Your task to perform on an android device: turn pop-ups off in chrome Image 0: 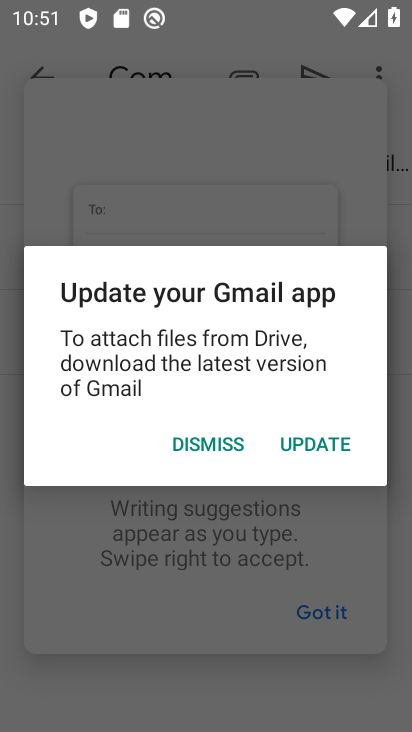
Step 0: press home button
Your task to perform on an android device: turn pop-ups off in chrome Image 1: 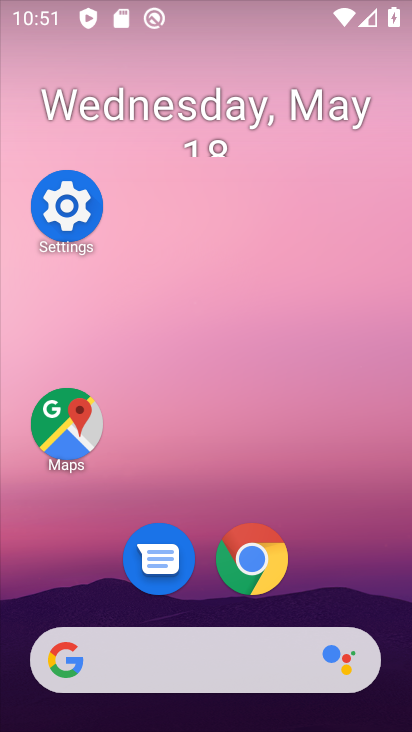
Step 1: click (266, 576)
Your task to perform on an android device: turn pop-ups off in chrome Image 2: 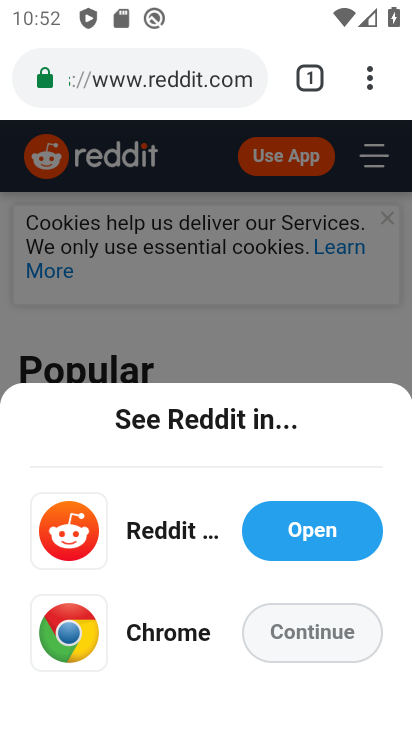
Step 2: click (378, 75)
Your task to perform on an android device: turn pop-ups off in chrome Image 3: 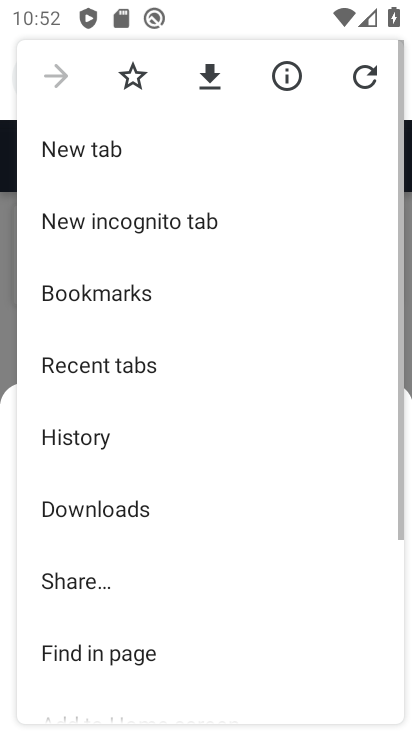
Step 3: drag from (227, 546) to (267, 155)
Your task to perform on an android device: turn pop-ups off in chrome Image 4: 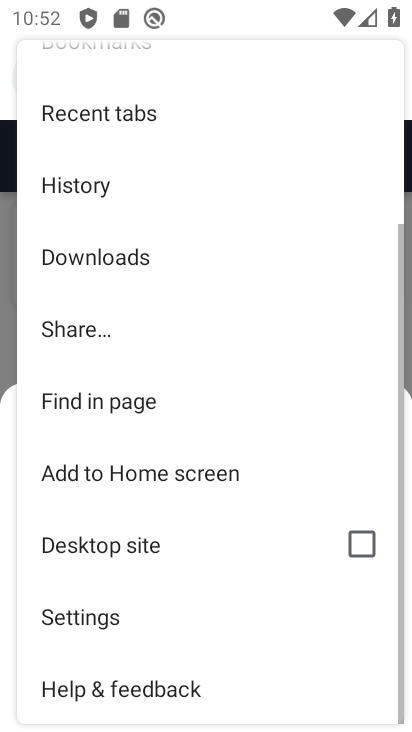
Step 4: click (164, 625)
Your task to perform on an android device: turn pop-ups off in chrome Image 5: 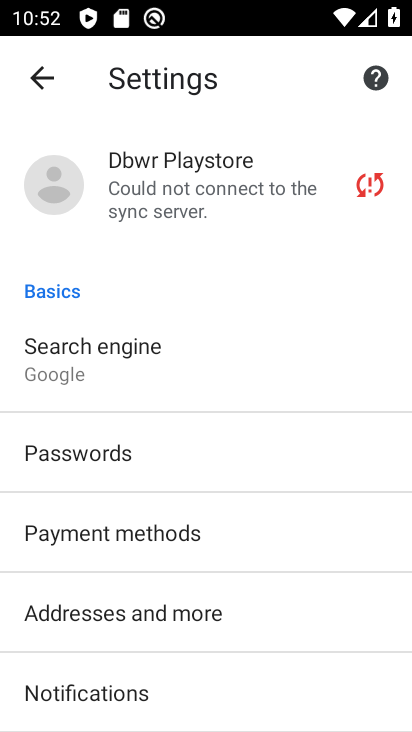
Step 5: drag from (167, 600) to (220, 215)
Your task to perform on an android device: turn pop-ups off in chrome Image 6: 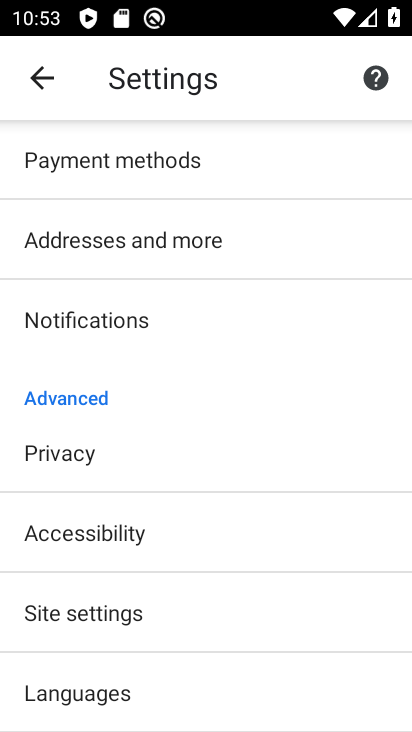
Step 6: click (154, 607)
Your task to perform on an android device: turn pop-ups off in chrome Image 7: 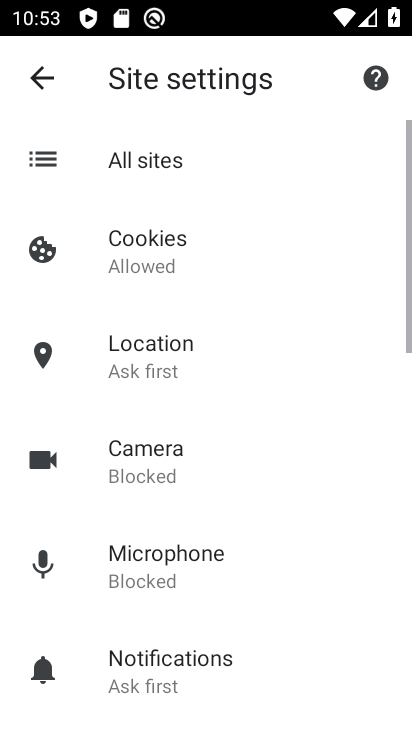
Step 7: drag from (154, 607) to (201, 257)
Your task to perform on an android device: turn pop-ups off in chrome Image 8: 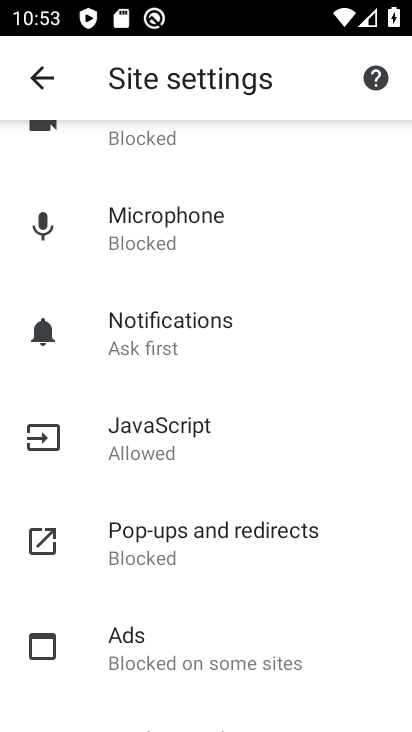
Step 8: click (247, 529)
Your task to perform on an android device: turn pop-ups off in chrome Image 9: 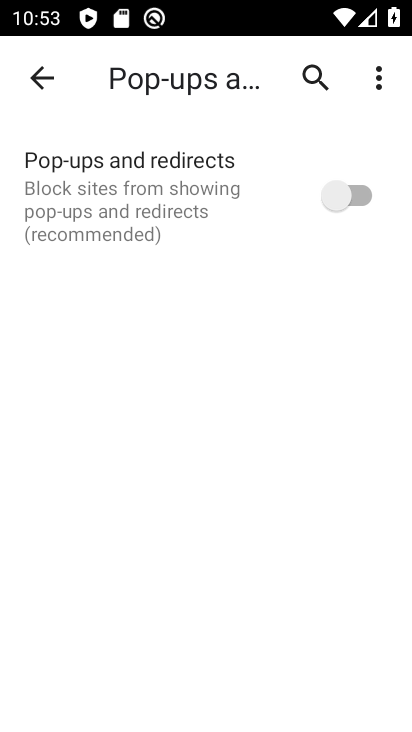
Step 9: click (351, 188)
Your task to perform on an android device: turn pop-ups off in chrome Image 10: 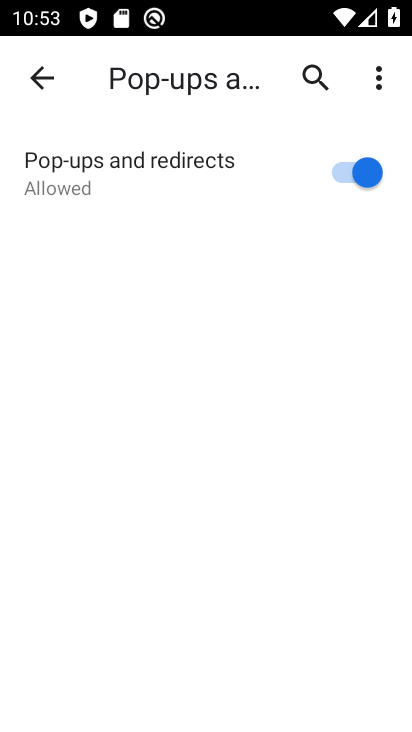
Step 10: task complete